Your task to perform on an android device: Where can I buy a nice beach blanket? Image 0: 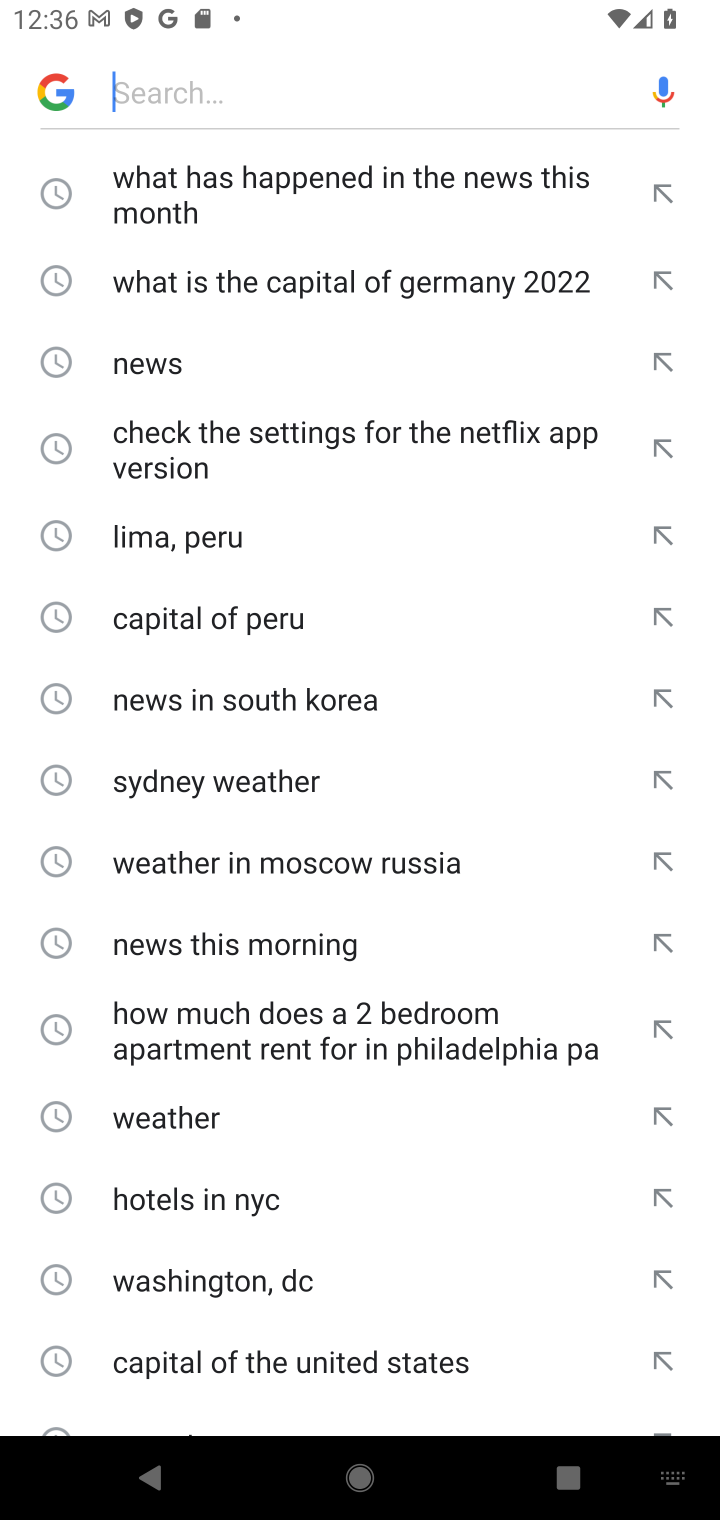
Step 0: type "Where can I buy a nice beach blanket?"
Your task to perform on an android device: Where can I buy a nice beach blanket? Image 1: 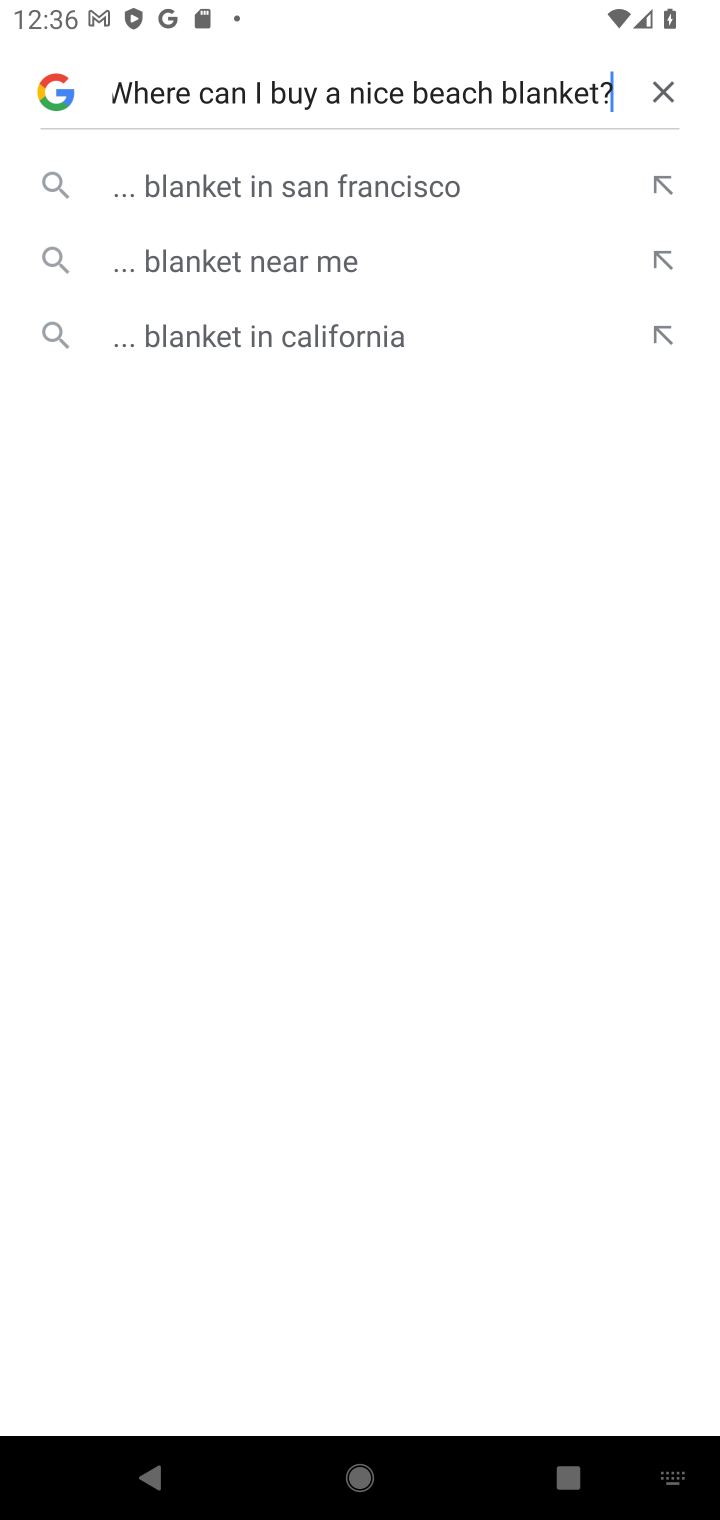
Step 1: click (172, 180)
Your task to perform on an android device: Where can I buy a nice beach blanket? Image 2: 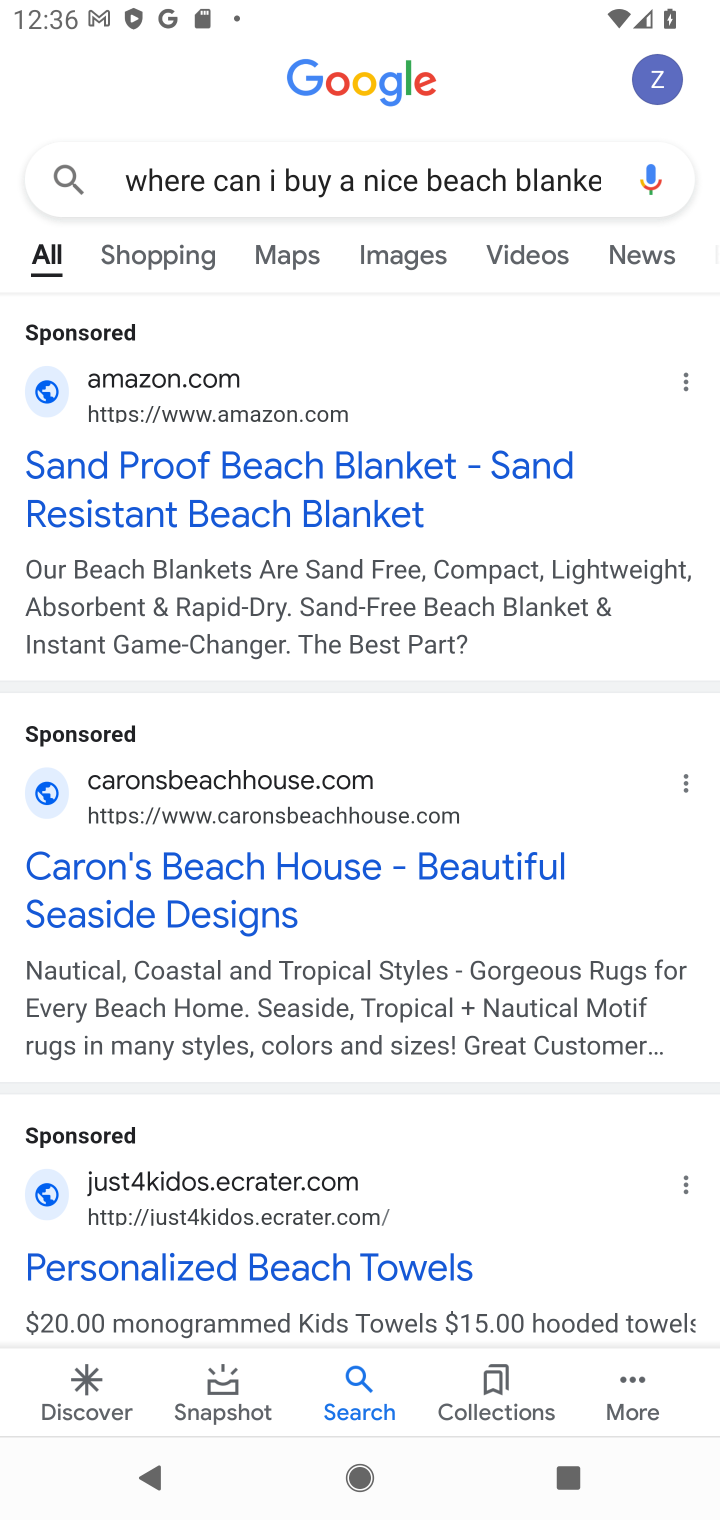
Step 2: click (167, 486)
Your task to perform on an android device: Where can I buy a nice beach blanket? Image 3: 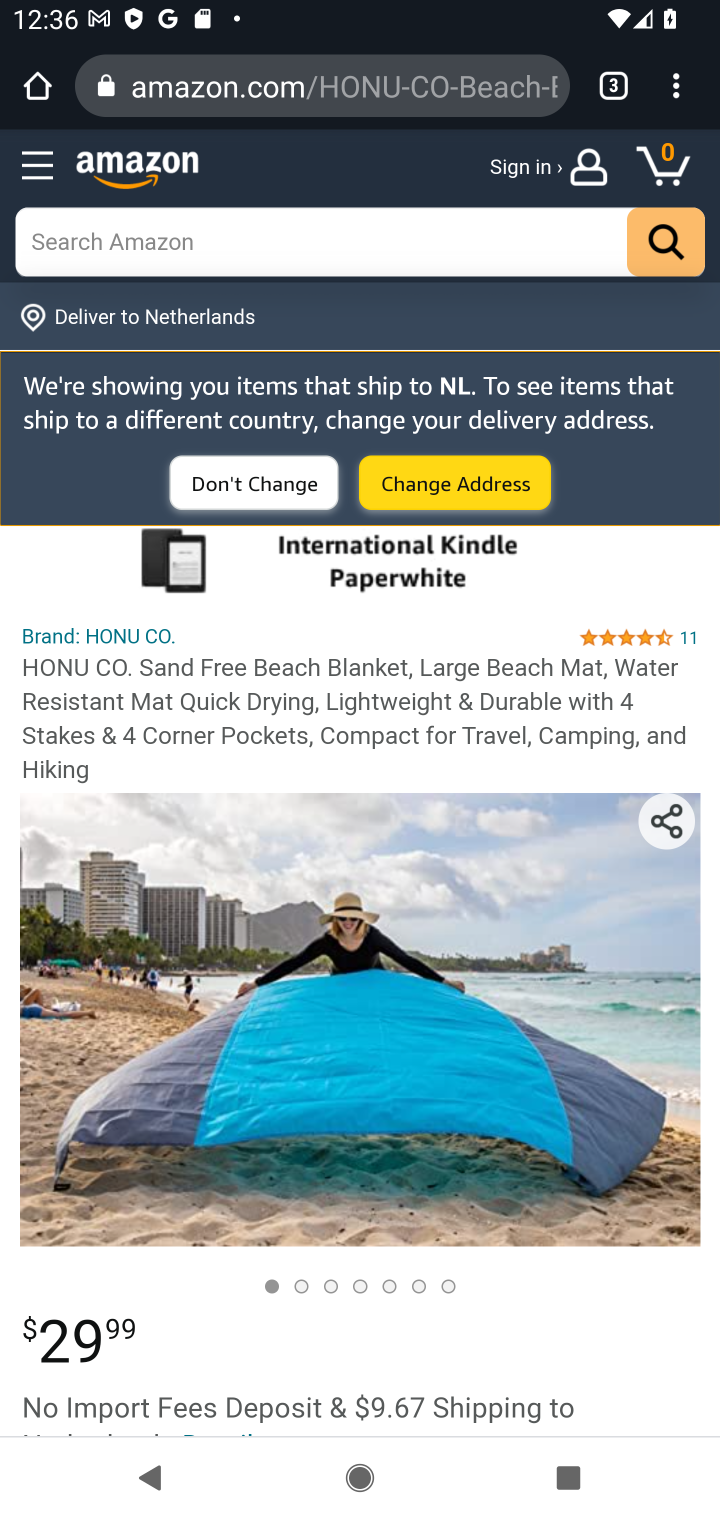
Step 3: task complete